Your task to perform on an android device: Open calendar and show me the first week of next month Image 0: 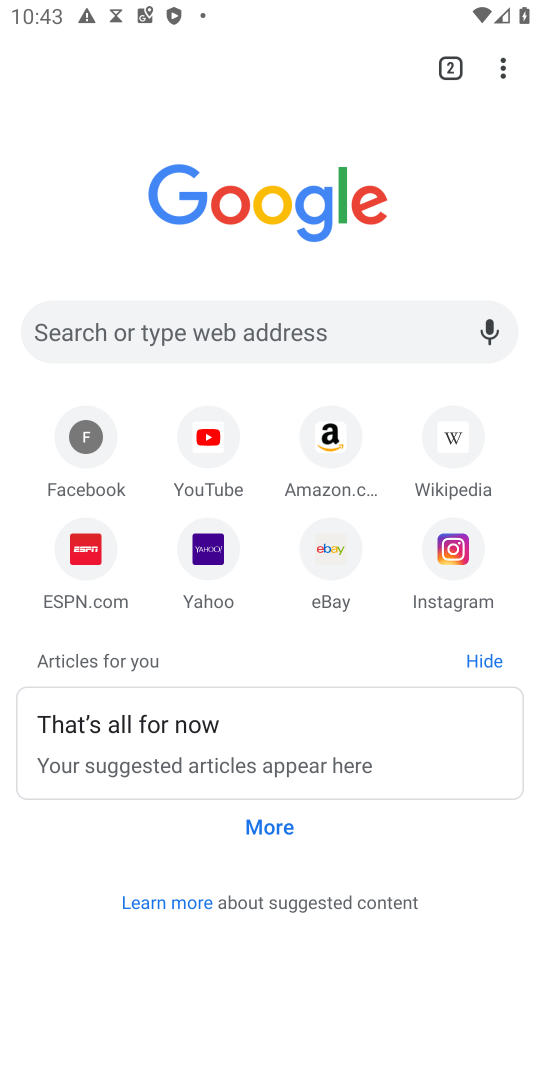
Step 0: press home button
Your task to perform on an android device: Open calendar and show me the first week of next month Image 1: 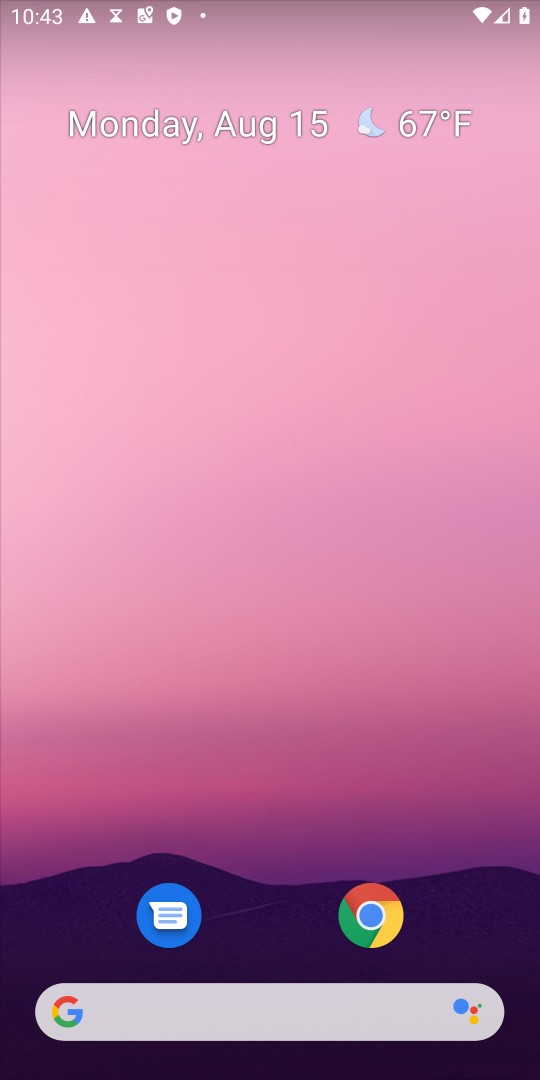
Step 1: drag from (285, 951) to (370, 414)
Your task to perform on an android device: Open calendar and show me the first week of next month Image 2: 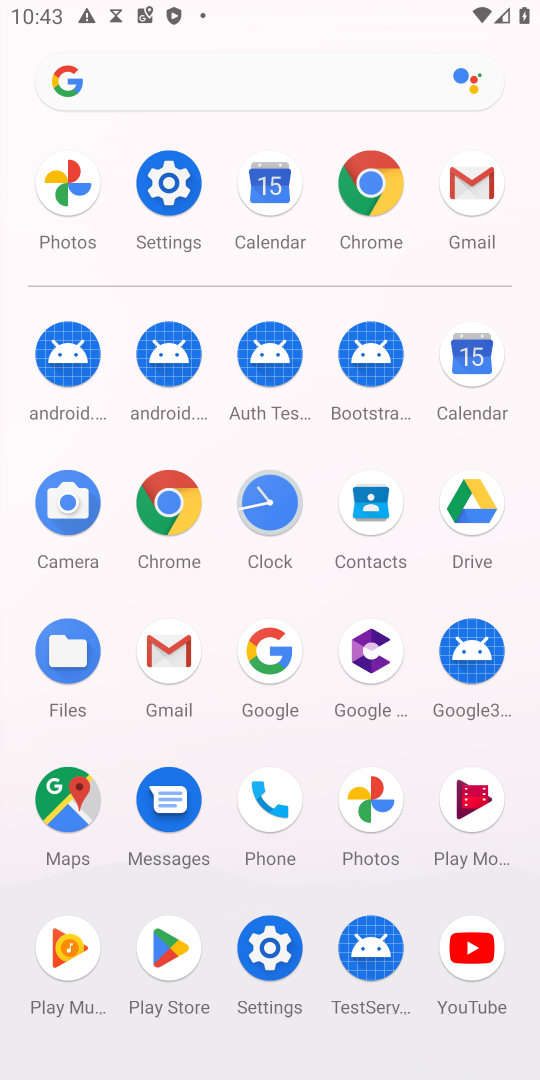
Step 2: click (276, 198)
Your task to perform on an android device: Open calendar and show me the first week of next month Image 3: 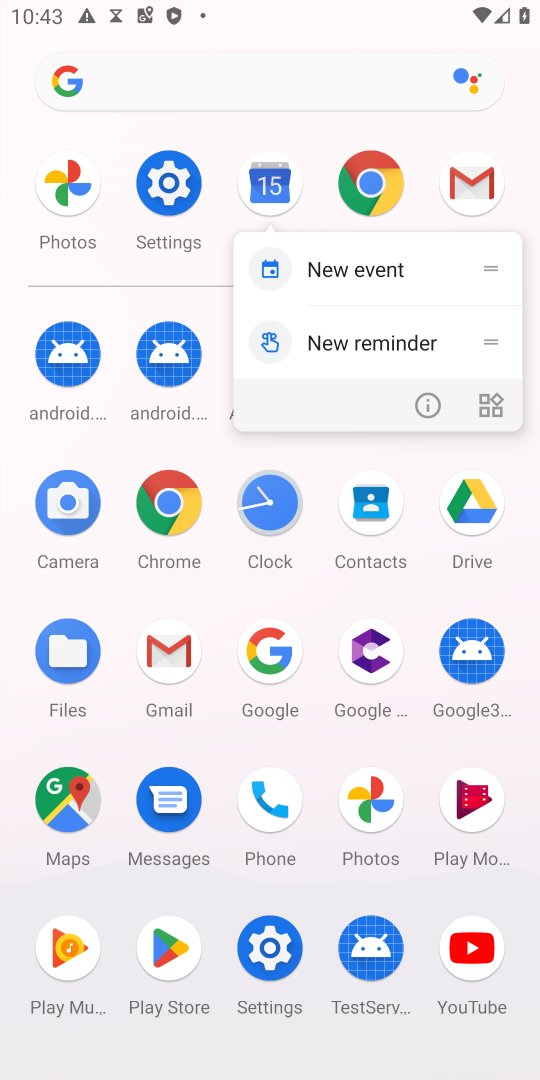
Step 3: click (276, 198)
Your task to perform on an android device: Open calendar and show me the first week of next month Image 4: 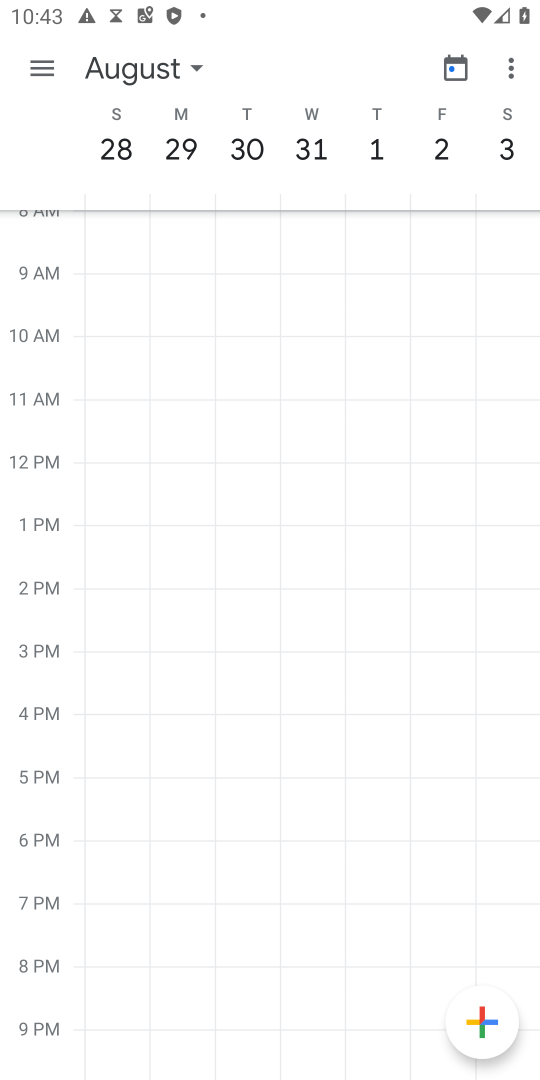
Step 4: click (189, 70)
Your task to perform on an android device: Open calendar and show me the first week of next month Image 5: 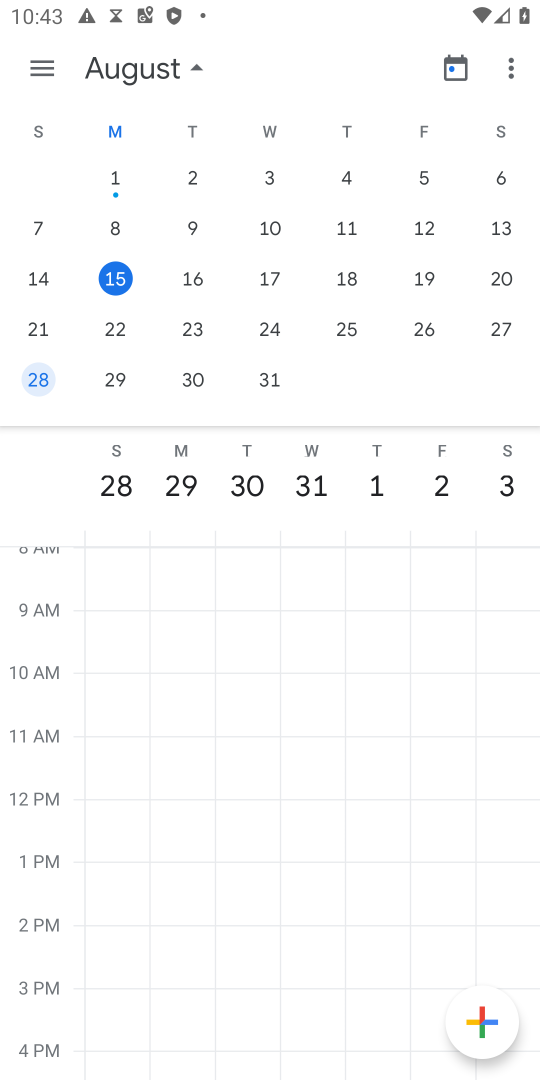
Step 5: drag from (478, 273) to (89, 265)
Your task to perform on an android device: Open calendar and show me the first week of next month Image 6: 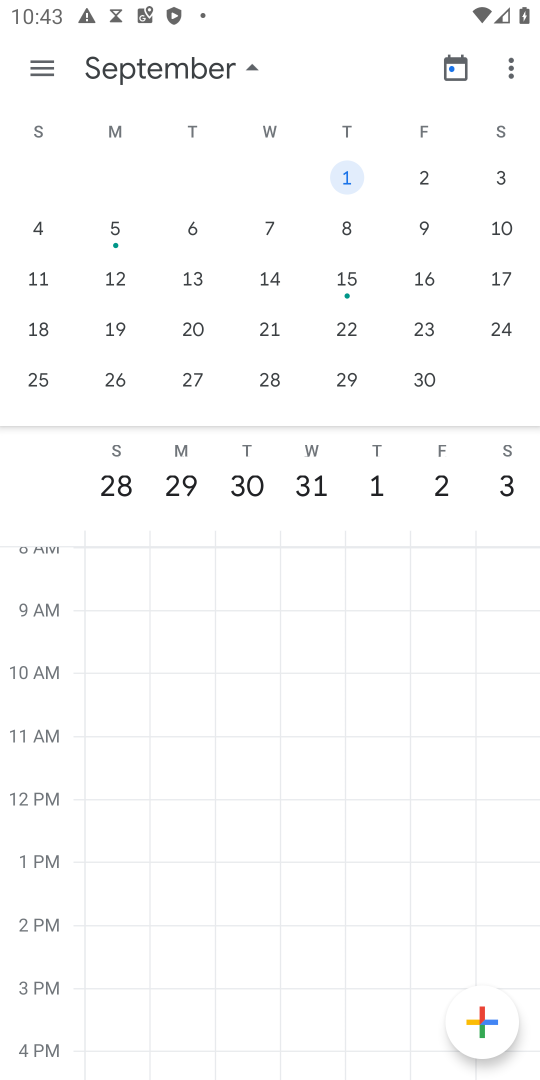
Step 6: click (342, 183)
Your task to perform on an android device: Open calendar and show me the first week of next month Image 7: 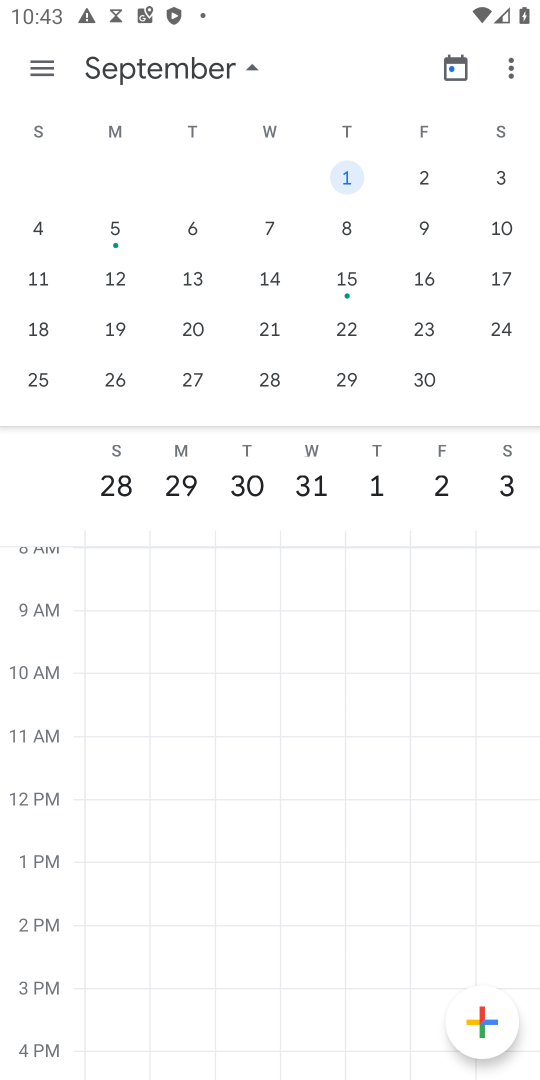
Step 7: click (421, 184)
Your task to perform on an android device: Open calendar and show me the first week of next month Image 8: 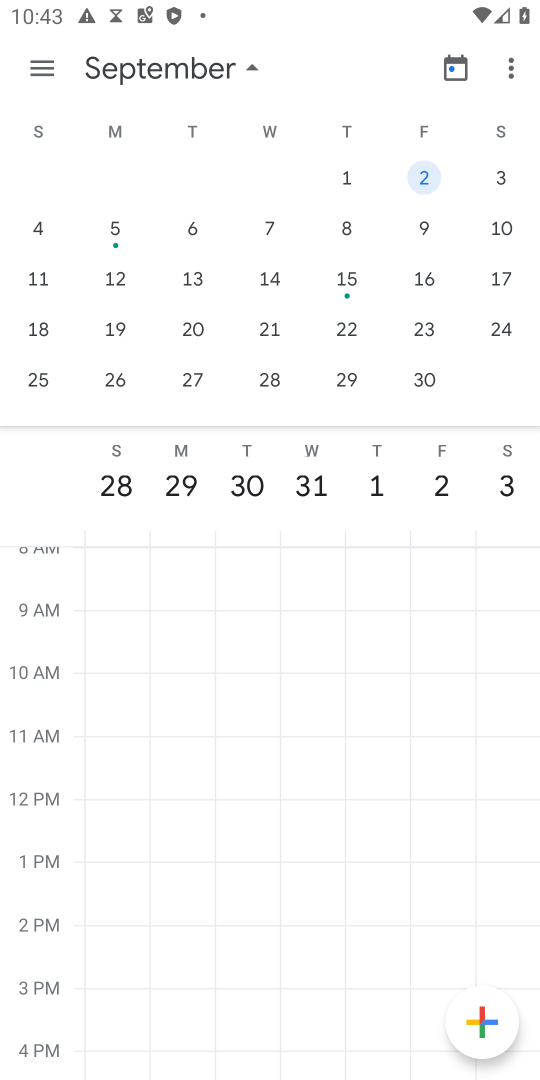
Step 8: click (511, 183)
Your task to perform on an android device: Open calendar and show me the first week of next month Image 9: 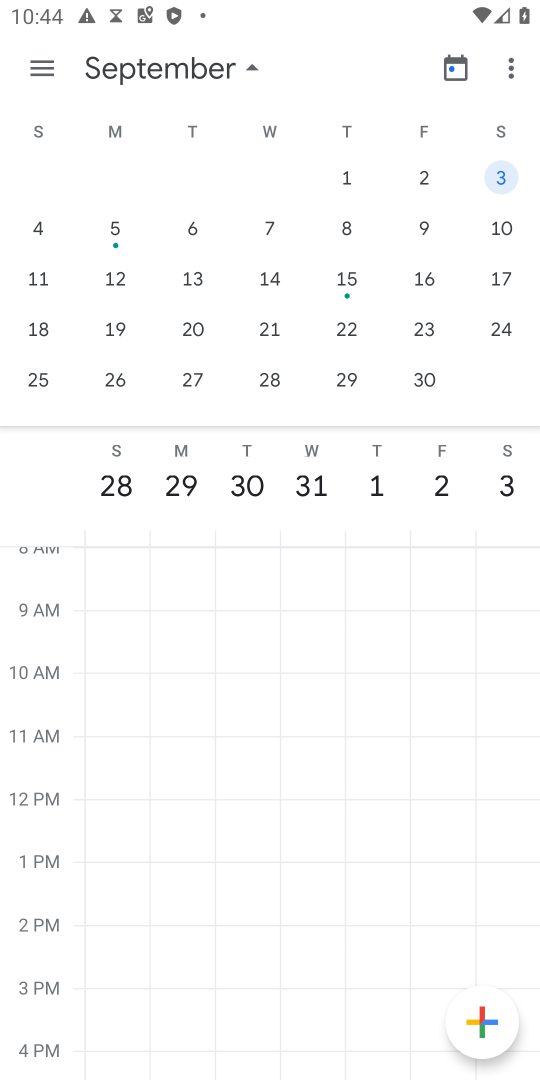
Step 9: task complete